Your task to perform on an android device: change the upload size in google photos Image 0: 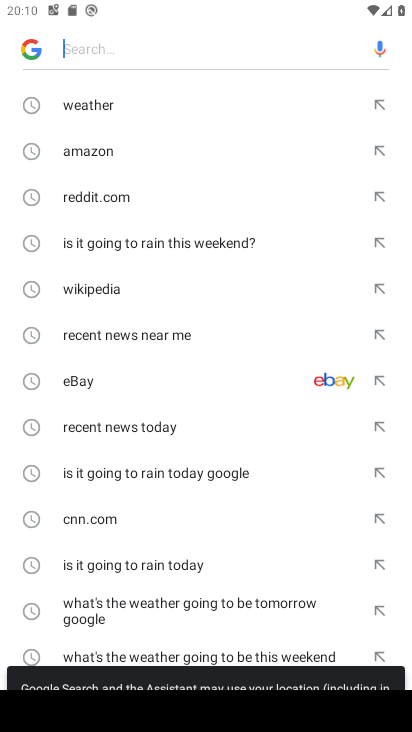
Step 0: press home button
Your task to perform on an android device: change the upload size in google photos Image 1: 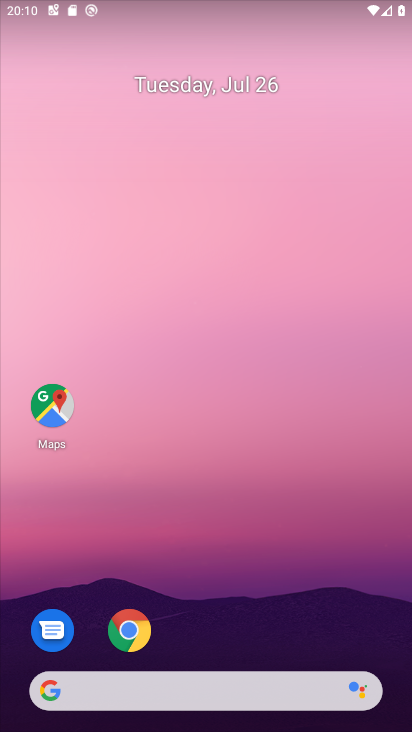
Step 1: drag from (400, 704) to (305, 43)
Your task to perform on an android device: change the upload size in google photos Image 2: 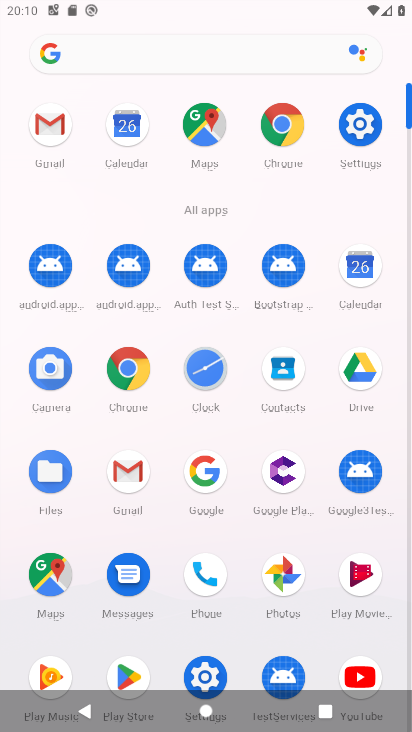
Step 2: click (279, 581)
Your task to perform on an android device: change the upload size in google photos Image 3: 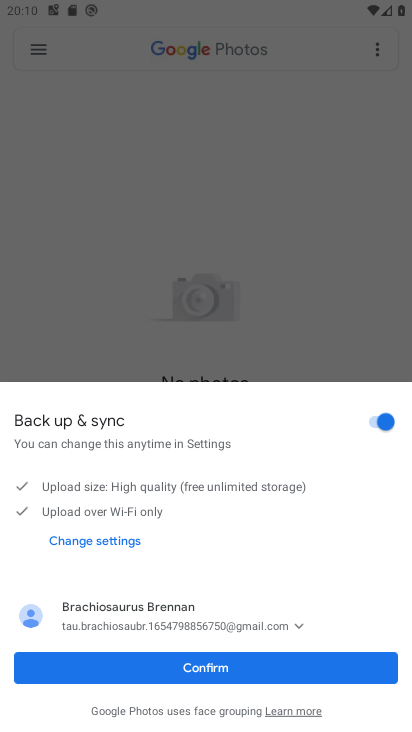
Step 3: click (255, 667)
Your task to perform on an android device: change the upload size in google photos Image 4: 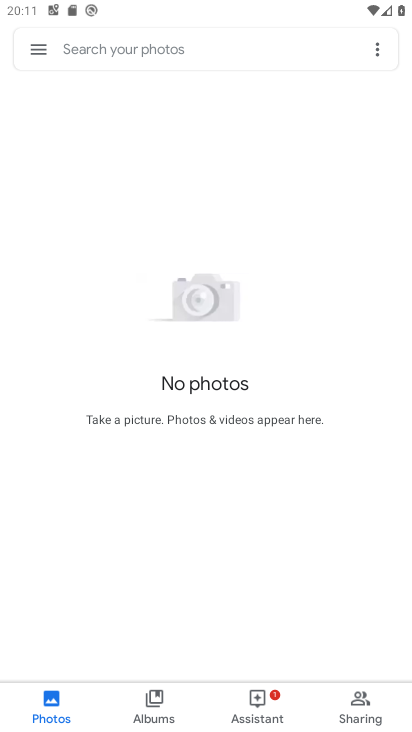
Step 4: click (39, 41)
Your task to perform on an android device: change the upload size in google photos Image 5: 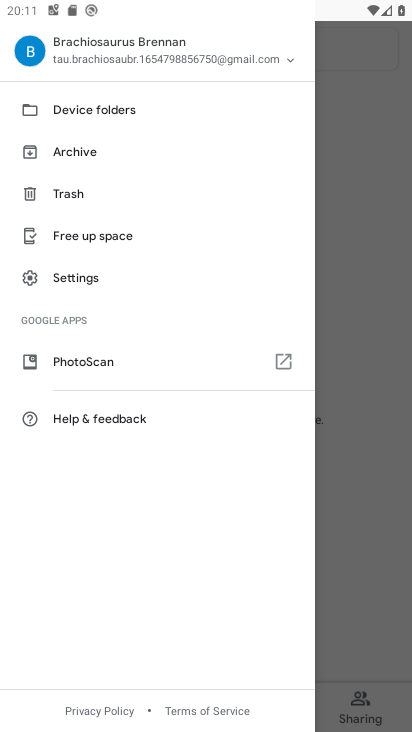
Step 5: click (64, 275)
Your task to perform on an android device: change the upload size in google photos Image 6: 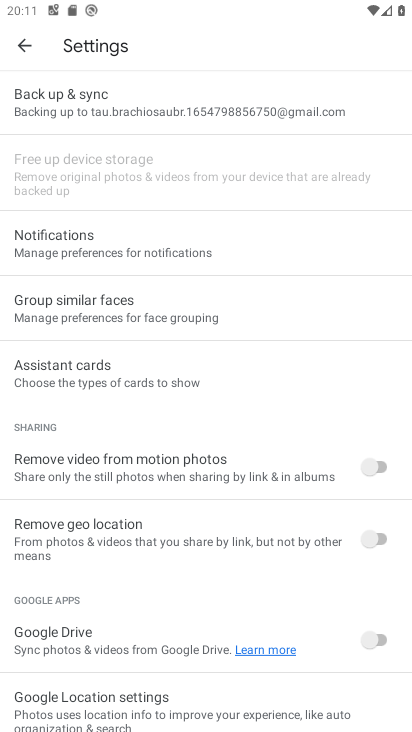
Step 6: click (75, 101)
Your task to perform on an android device: change the upload size in google photos Image 7: 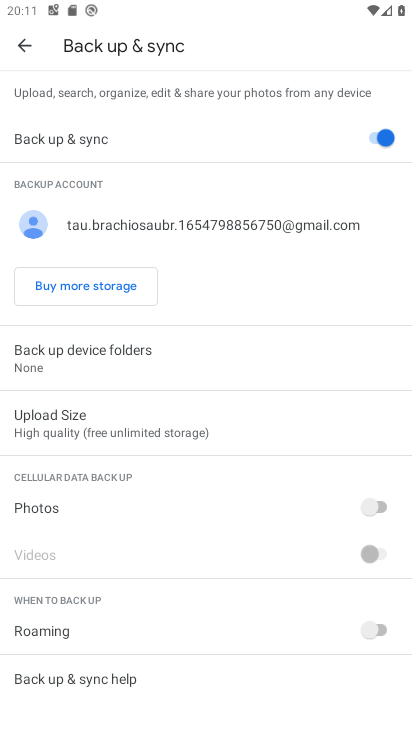
Step 7: click (55, 450)
Your task to perform on an android device: change the upload size in google photos Image 8: 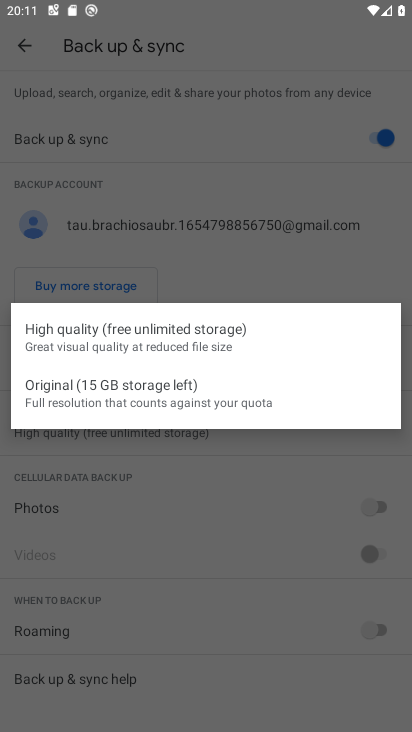
Step 8: click (58, 386)
Your task to perform on an android device: change the upload size in google photos Image 9: 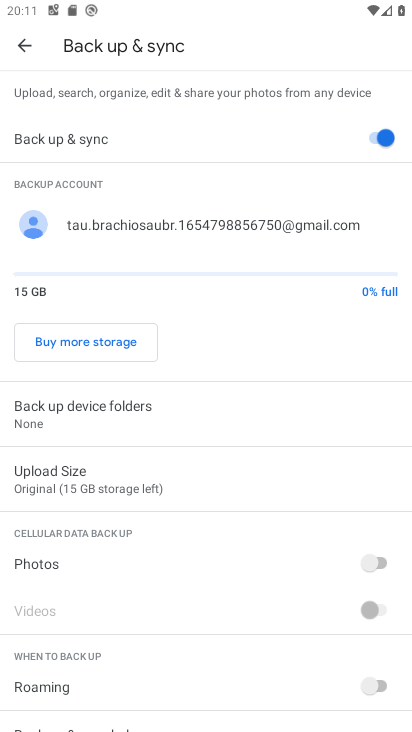
Step 9: task complete